Your task to perform on an android device: Go to Reddit.com Image 0: 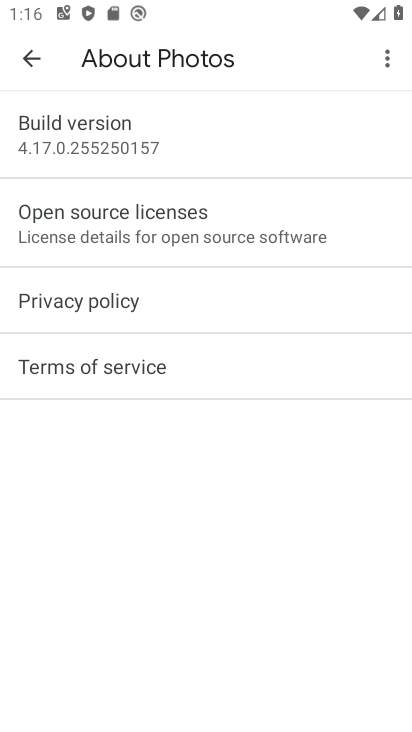
Step 0: press home button
Your task to perform on an android device: Go to Reddit.com Image 1: 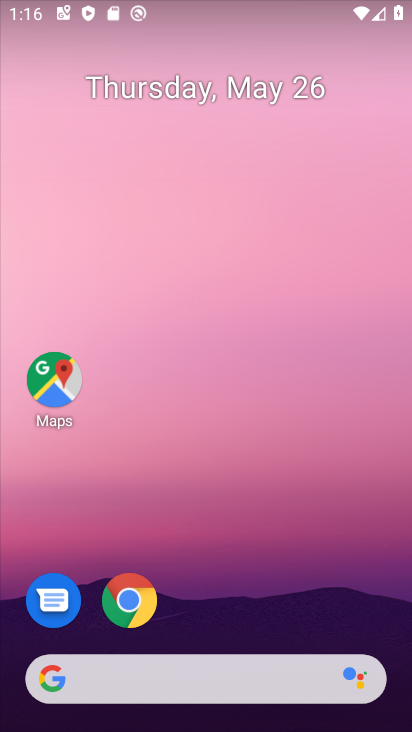
Step 1: click (168, 686)
Your task to perform on an android device: Go to Reddit.com Image 2: 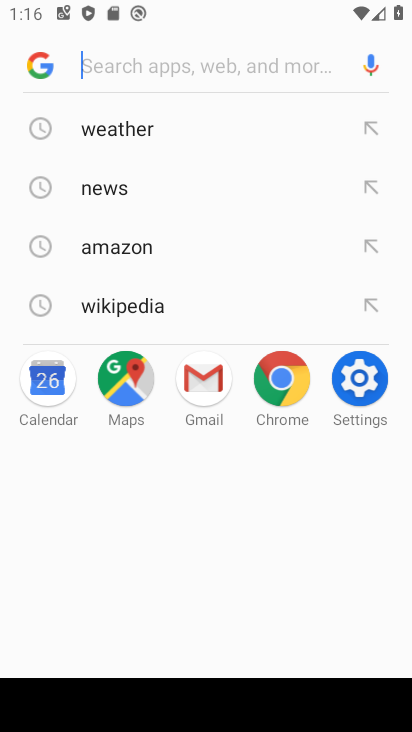
Step 2: click (281, 373)
Your task to perform on an android device: Go to Reddit.com Image 3: 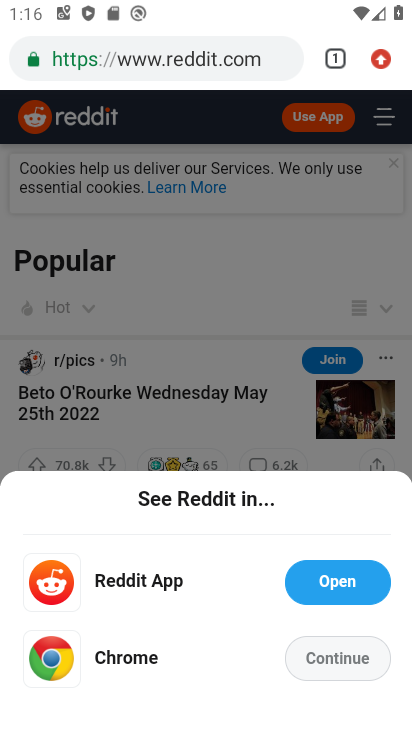
Step 3: task complete